Your task to perform on an android device: clear all cookies in the chrome app Image 0: 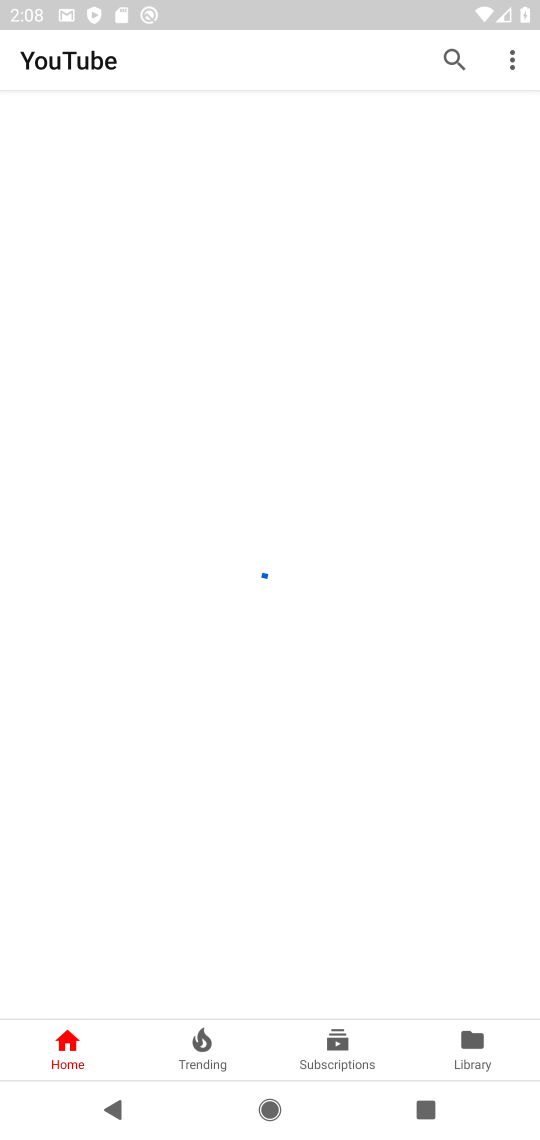
Step 0: press home button
Your task to perform on an android device: clear all cookies in the chrome app Image 1: 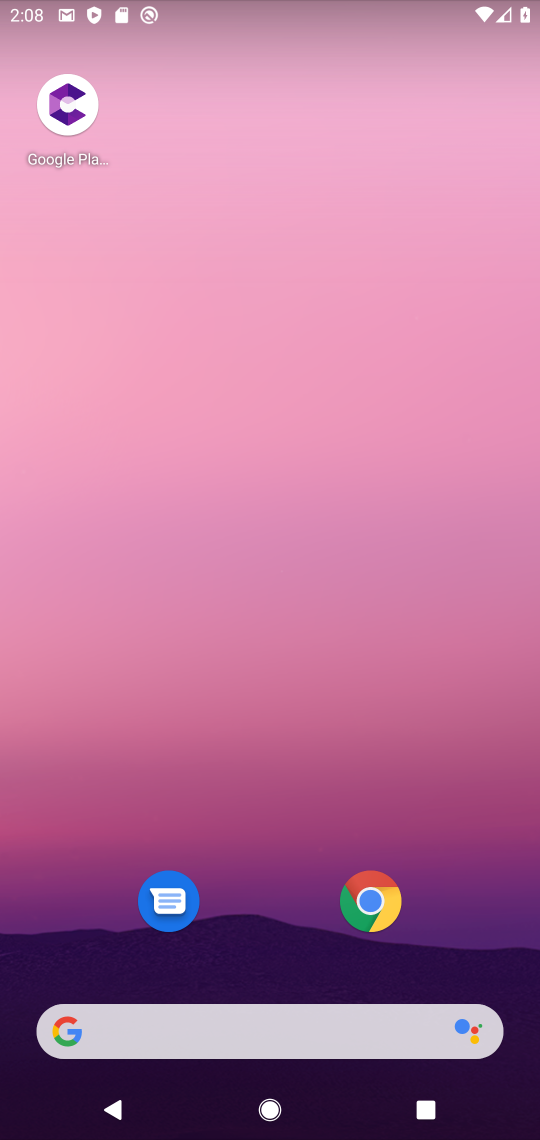
Step 1: drag from (351, 895) to (359, 270)
Your task to perform on an android device: clear all cookies in the chrome app Image 2: 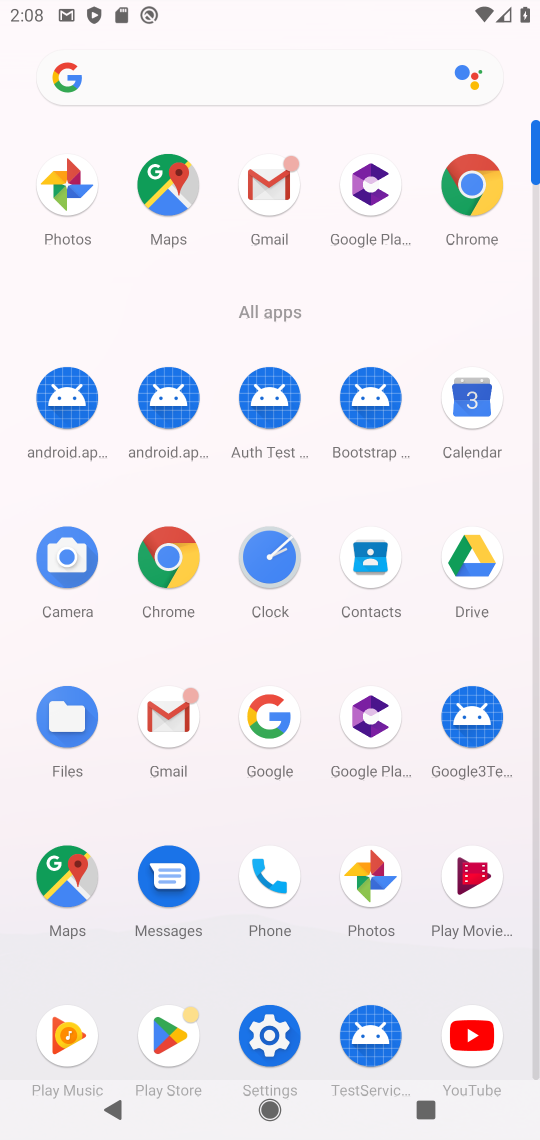
Step 2: click (475, 188)
Your task to perform on an android device: clear all cookies in the chrome app Image 3: 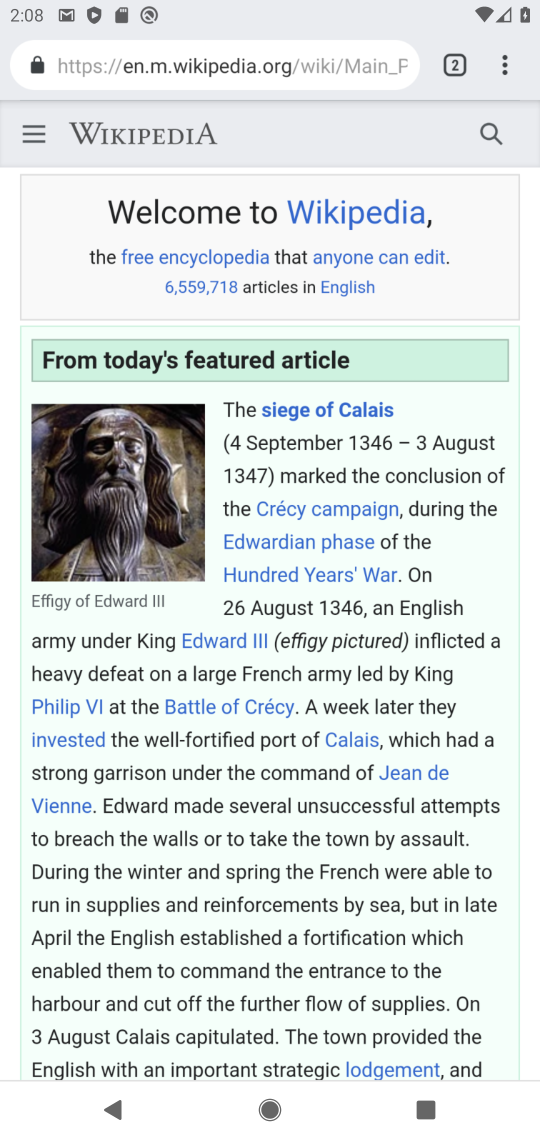
Step 3: click (518, 63)
Your task to perform on an android device: clear all cookies in the chrome app Image 4: 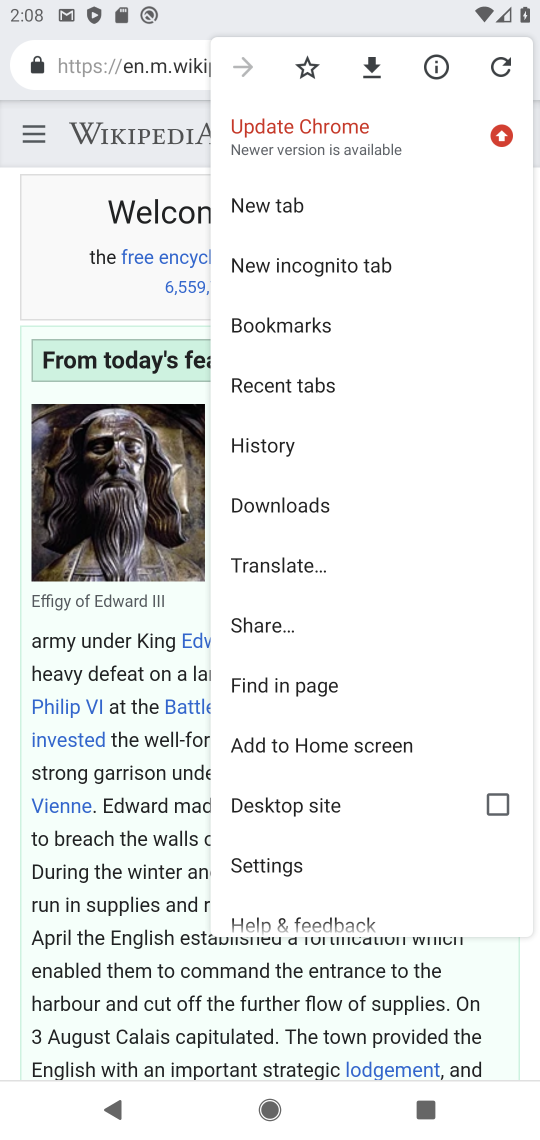
Step 4: click (256, 874)
Your task to perform on an android device: clear all cookies in the chrome app Image 5: 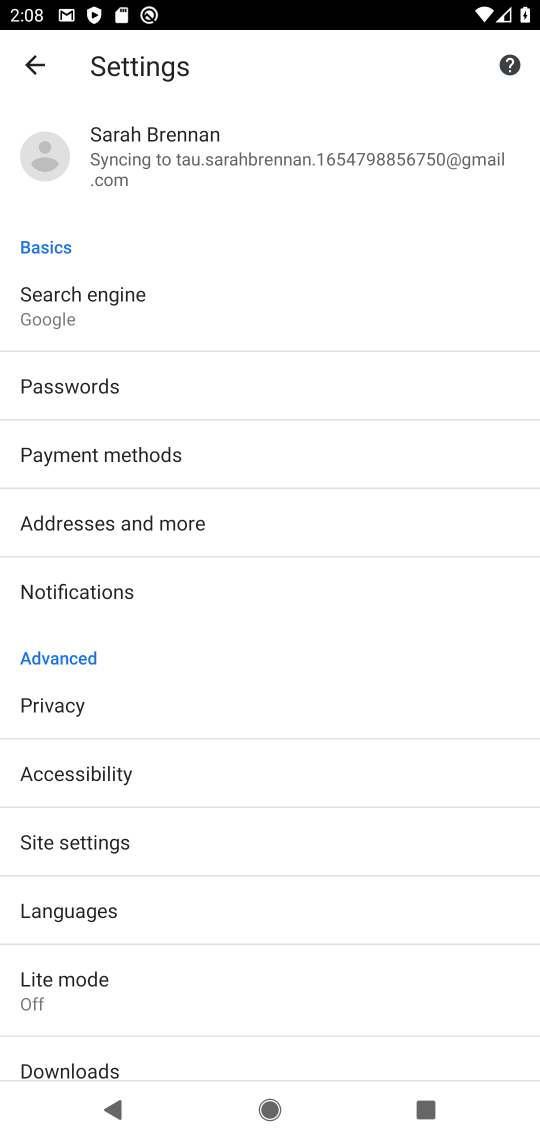
Step 5: click (112, 712)
Your task to perform on an android device: clear all cookies in the chrome app Image 6: 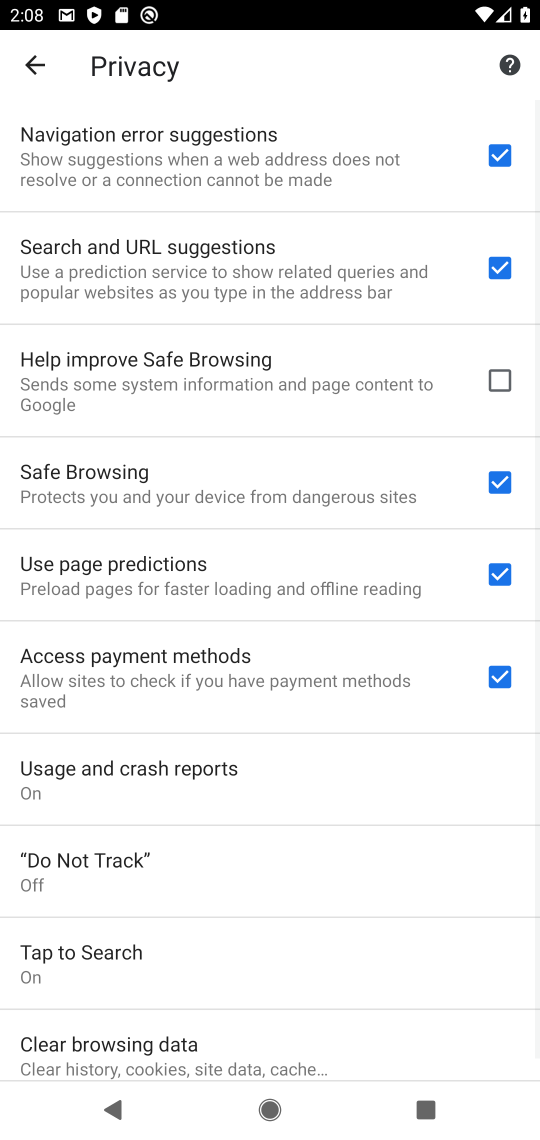
Step 6: drag from (219, 1054) to (255, 530)
Your task to perform on an android device: clear all cookies in the chrome app Image 7: 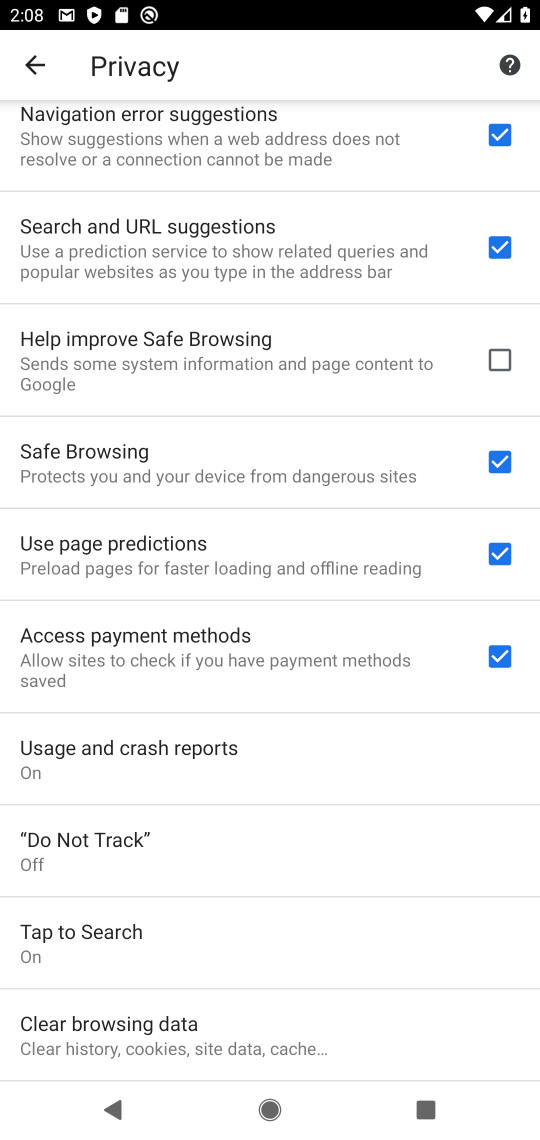
Step 7: click (194, 1029)
Your task to perform on an android device: clear all cookies in the chrome app Image 8: 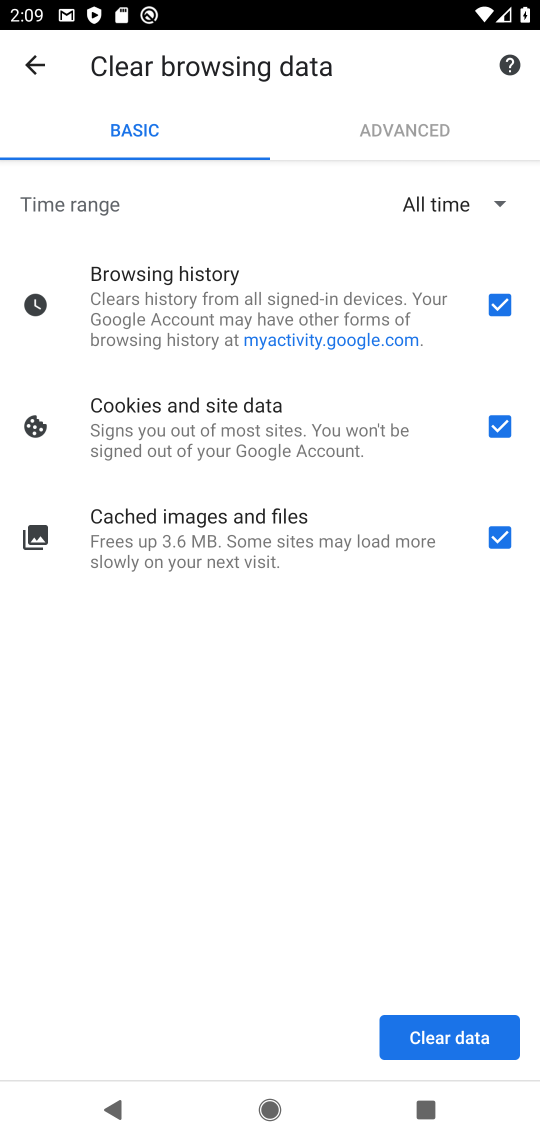
Step 8: click (437, 1043)
Your task to perform on an android device: clear all cookies in the chrome app Image 9: 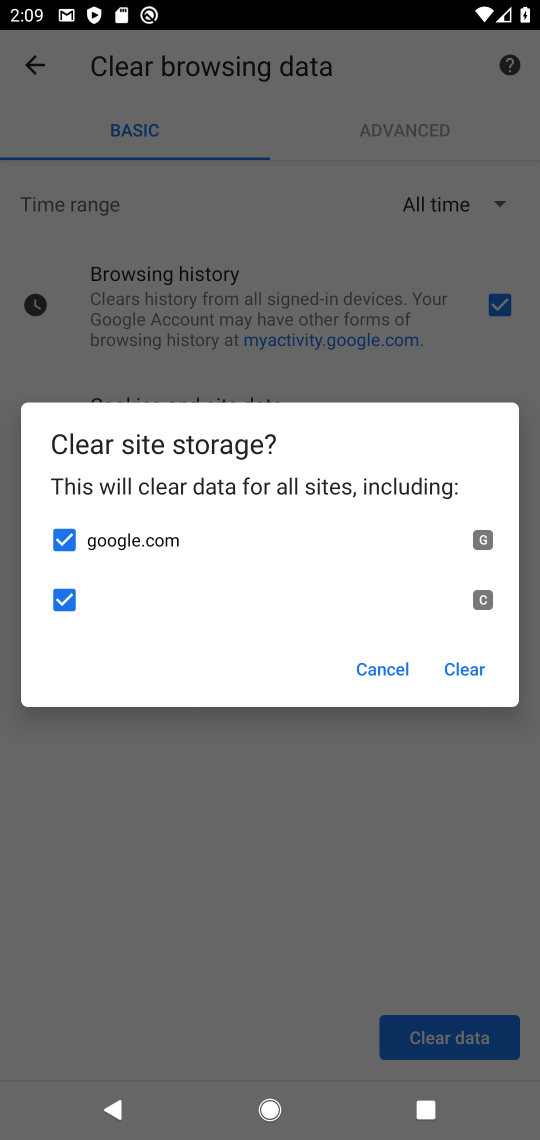
Step 9: click (435, 662)
Your task to perform on an android device: clear all cookies in the chrome app Image 10: 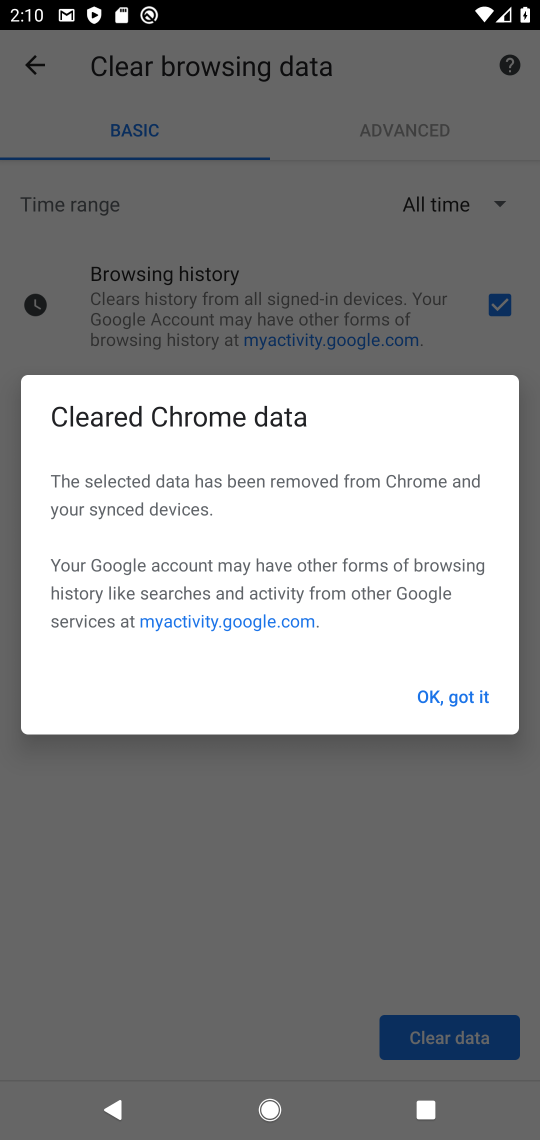
Step 10: click (458, 680)
Your task to perform on an android device: clear all cookies in the chrome app Image 11: 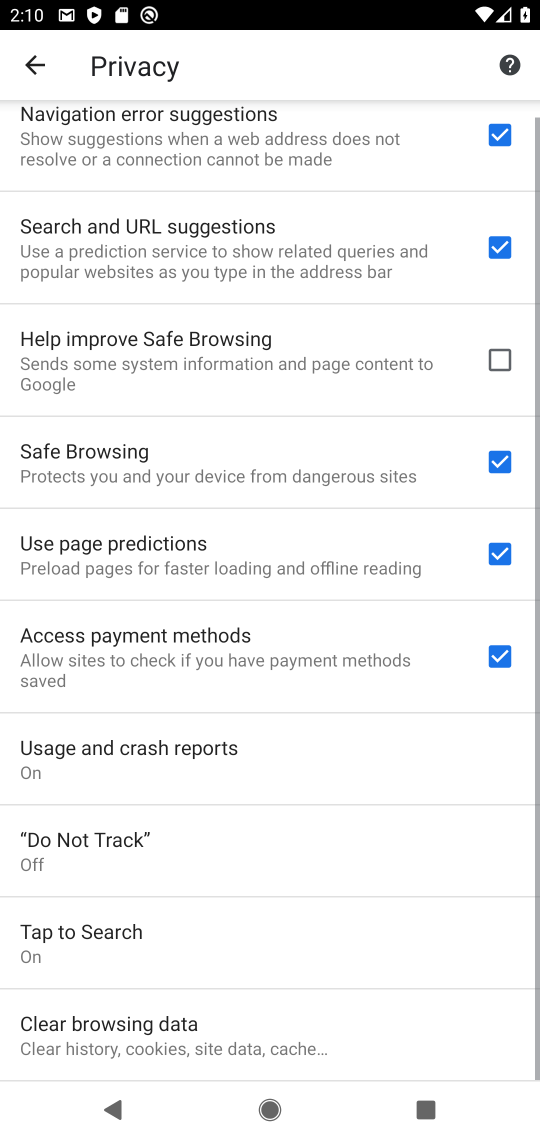
Step 11: task complete